Your task to perform on an android device: visit the assistant section in the google photos Image 0: 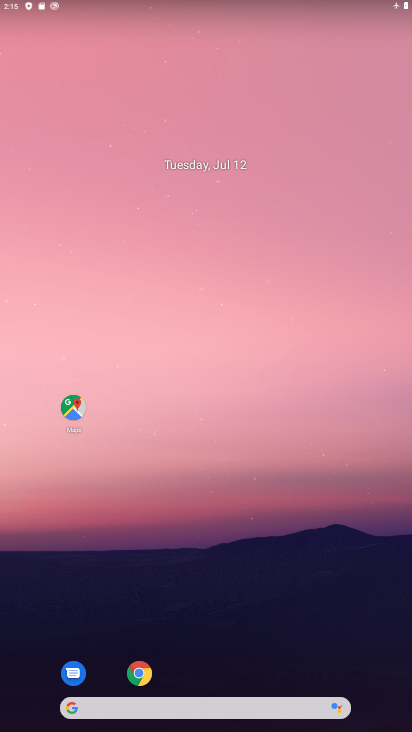
Step 0: drag from (181, 620) to (178, 229)
Your task to perform on an android device: visit the assistant section in the google photos Image 1: 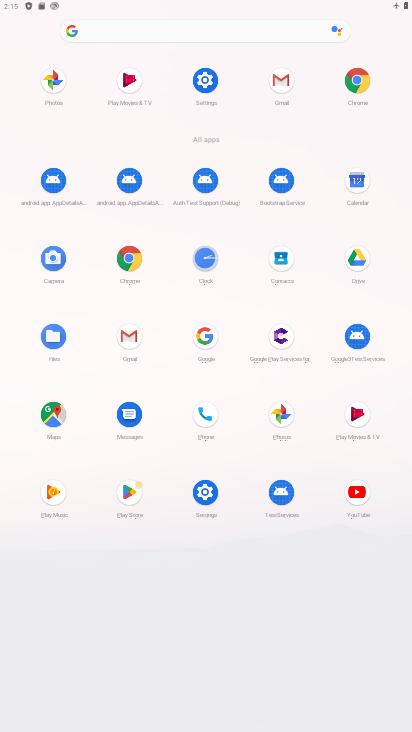
Step 1: click (285, 418)
Your task to perform on an android device: visit the assistant section in the google photos Image 2: 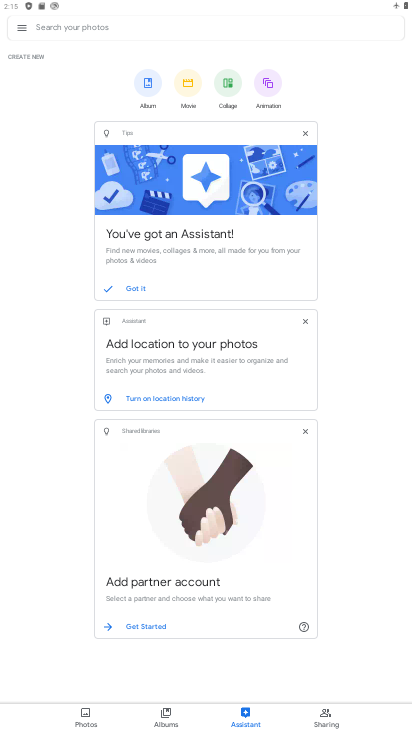
Step 2: task complete